Your task to perform on an android device: turn off improve location accuracy Image 0: 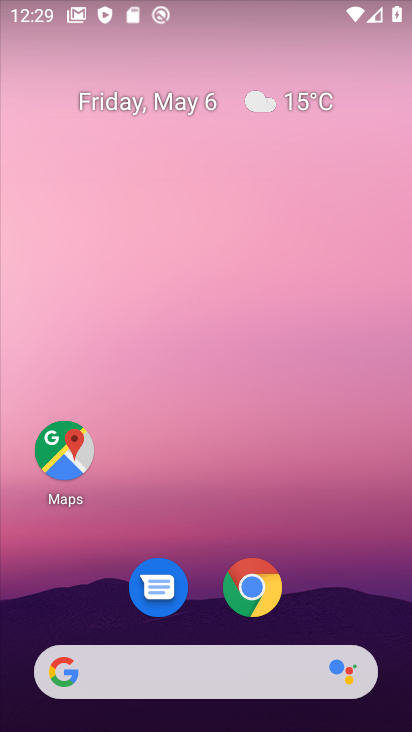
Step 0: drag from (347, 577) to (285, 115)
Your task to perform on an android device: turn off improve location accuracy Image 1: 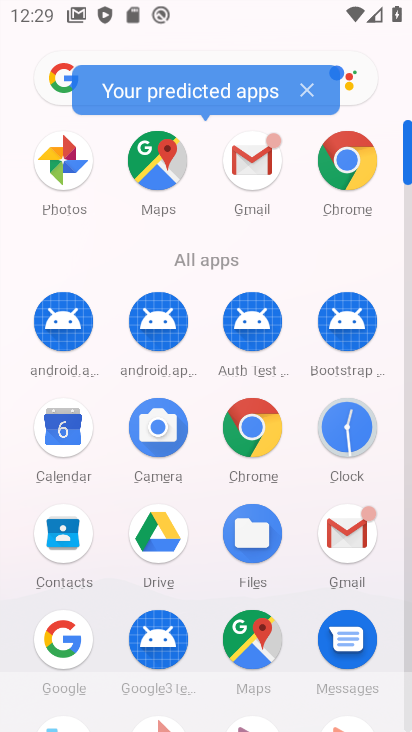
Step 1: drag from (201, 606) to (219, 122)
Your task to perform on an android device: turn off improve location accuracy Image 2: 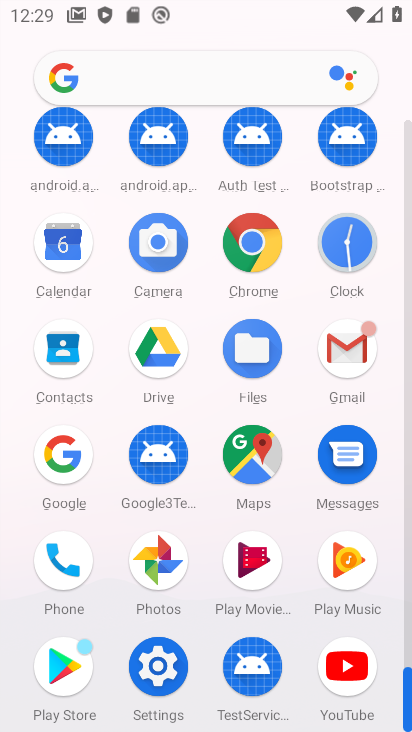
Step 2: click (168, 659)
Your task to perform on an android device: turn off improve location accuracy Image 3: 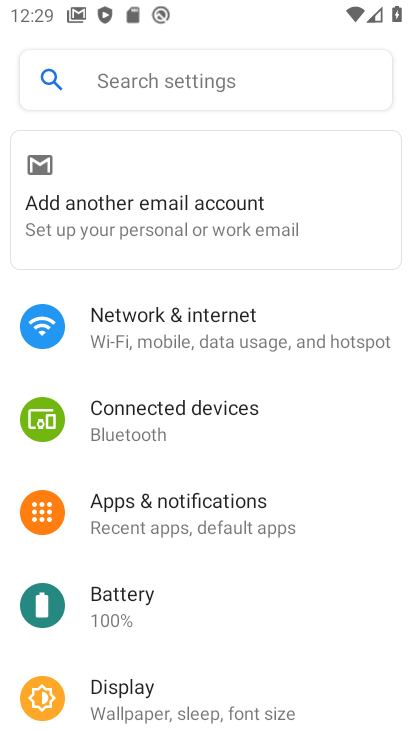
Step 3: drag from (225, 700) to (248, 131)
Your task to perform on an android device: turn off improve location accuracy Image 4: 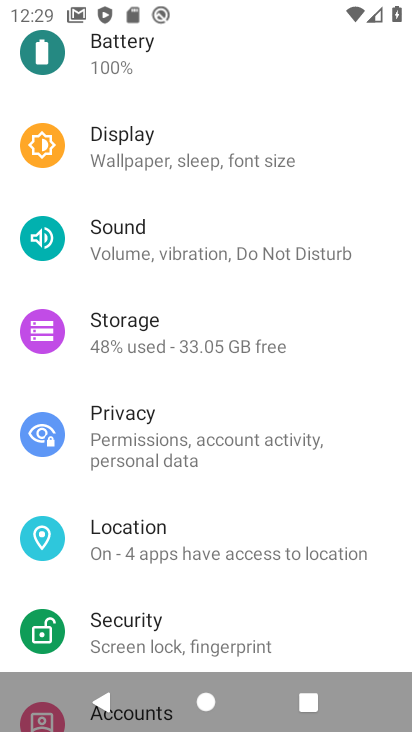
Step 4: click (165, 549)
Your task to perform on an android device: turn off improve location accuracy Image 5: 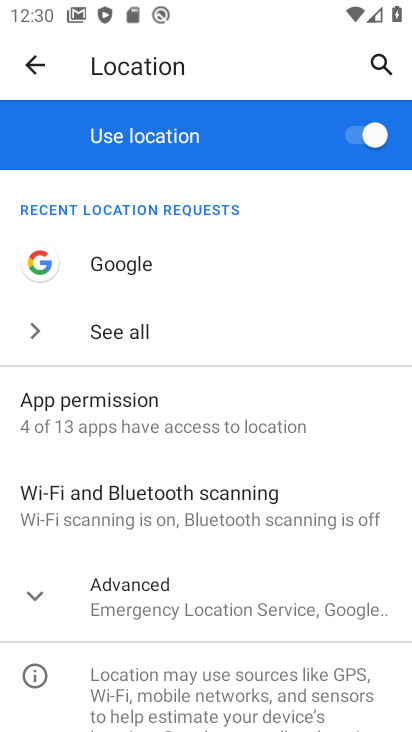
Step 5: click (156, 589)
Your task to perform on an android device: turn off improve location accuracy Image 6: 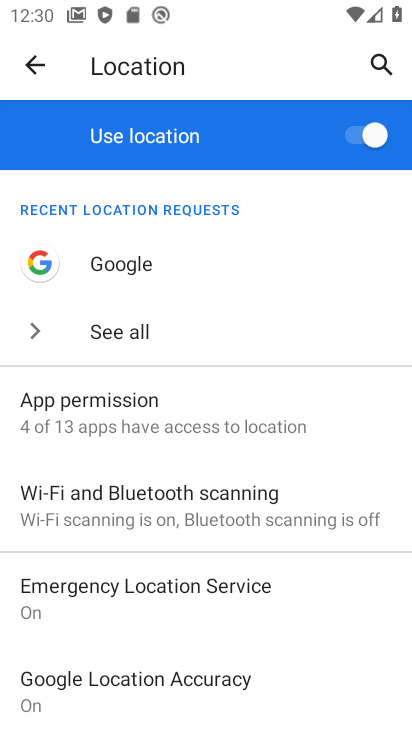
Step 6: drag from (219, 588) to (242, 263)
Your task to perform on an android device: turn off improve location accuracy Image 7: 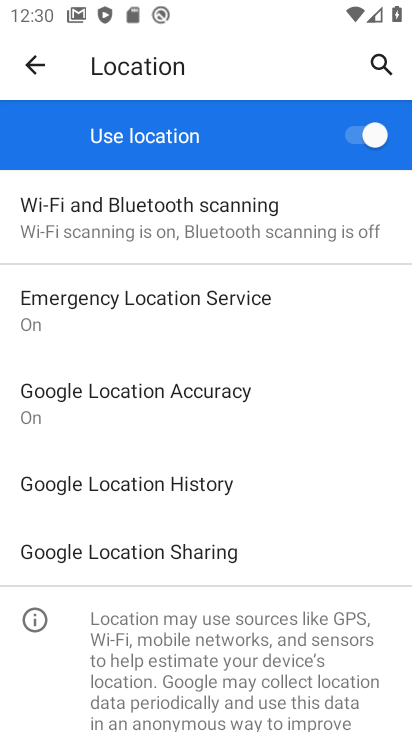
Step 7: click (185, 395)
Your task to perform on an android device: turn off improve location accuracy Image 8: 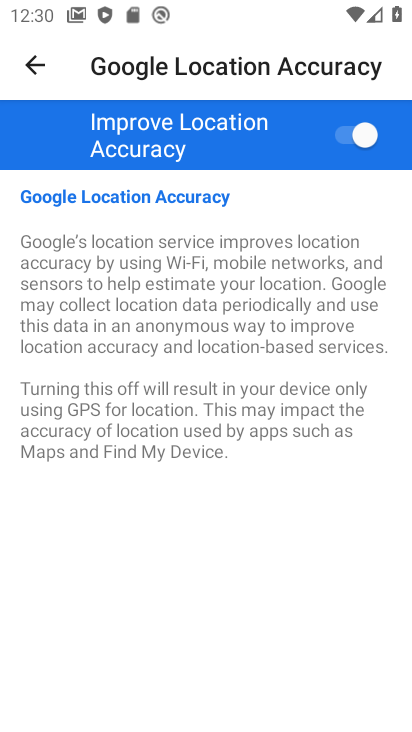
Step 8: click (347, 131)
Your task to perform on an android device: turn off improve location accuracy Image 9: 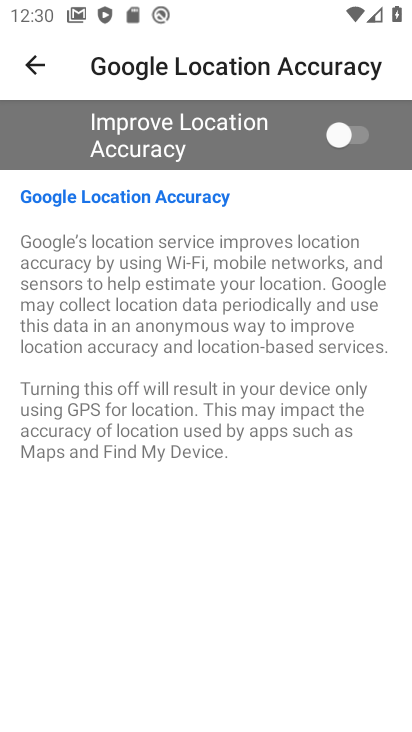
Step 9: task complete